Your task to perform on an android device: change the clock display to digital Image 0: 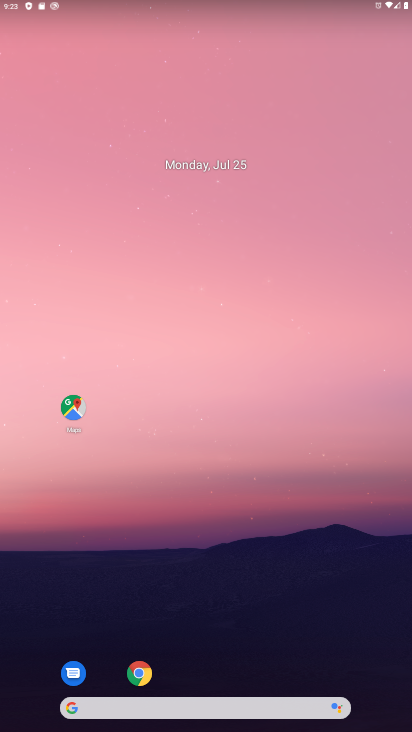
Step 0: drag from (250, 683) to (253, 141)
Your task to perform on an android device: change the clock display to digital Image 1: 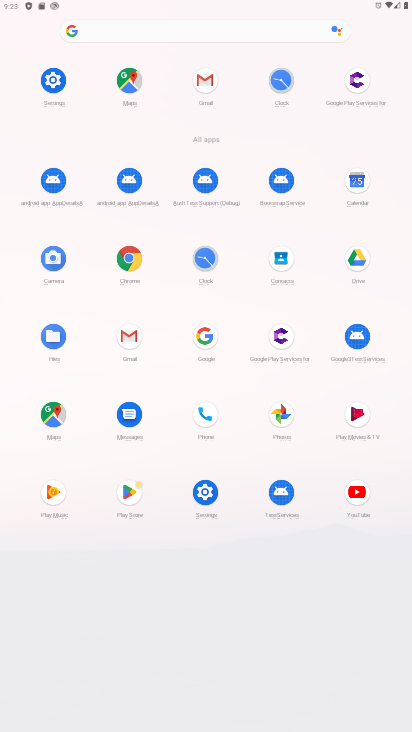
Step 1: click (192, 257)
Your task to perform on an android device: change the clock display to digital Image 2: 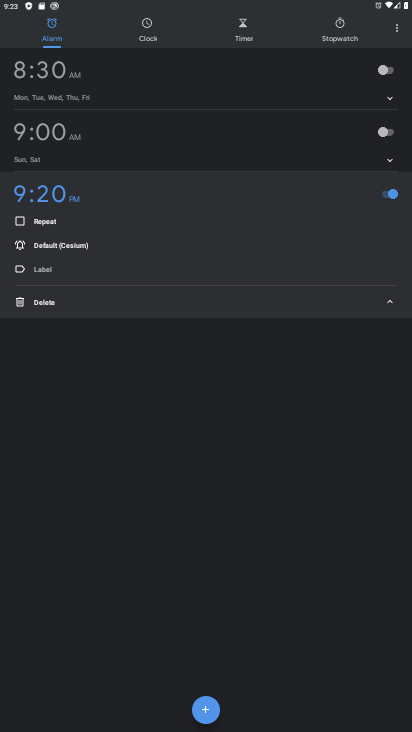
Step 2: click (398, 28)
Your task to perform on an android device: change the clock display to digital Image 3: 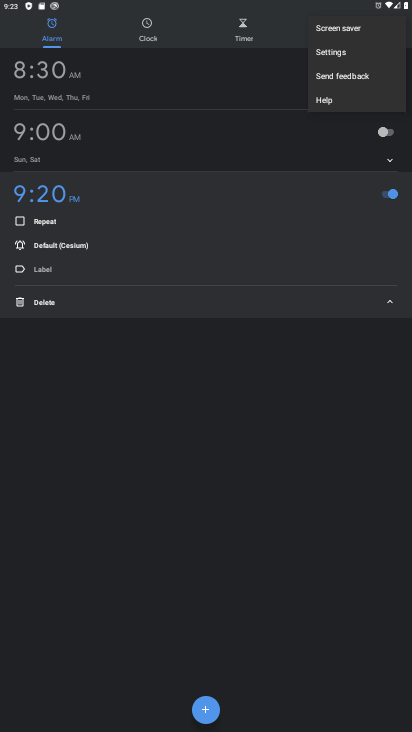
Step 3: click (315, 47)
Your task to perform on an android device: change the clock display to digital Image 4: 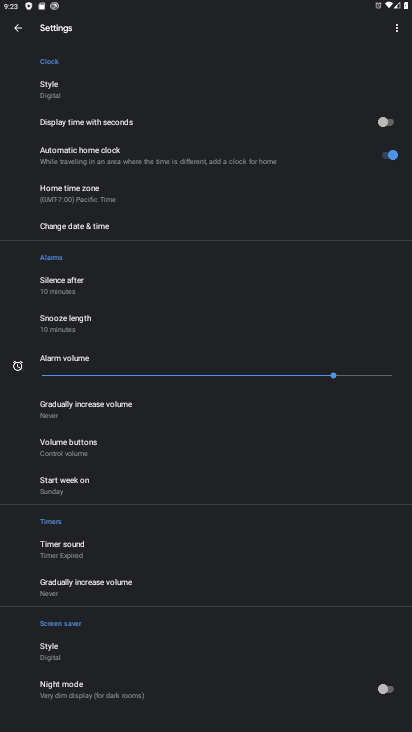
Step 4: click (91, 95)
Your task to perform on an android device: change the clock display to digital Image 5: 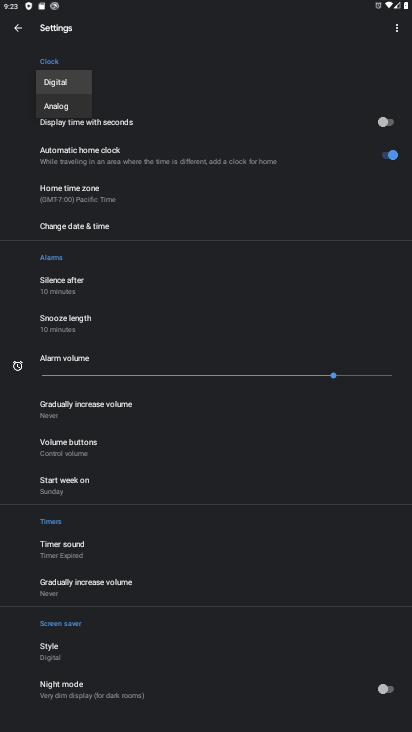
Step 5: click (61, 85)
Your task to perform on an android device: change the clock display to digital Image 6: 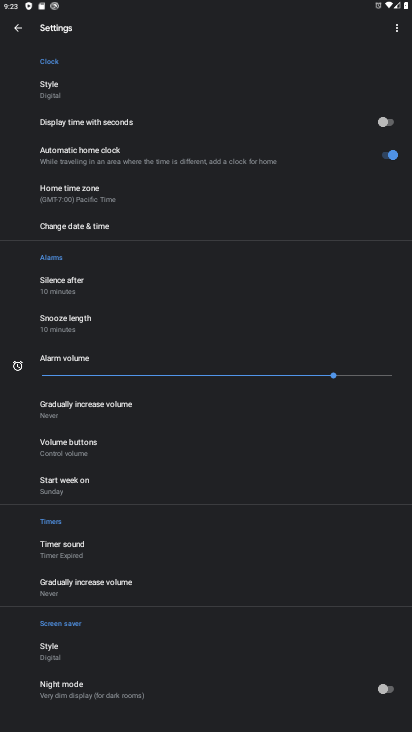
Step 6: task complete